Your task to perform on an android device: Open internet settings Image 0: 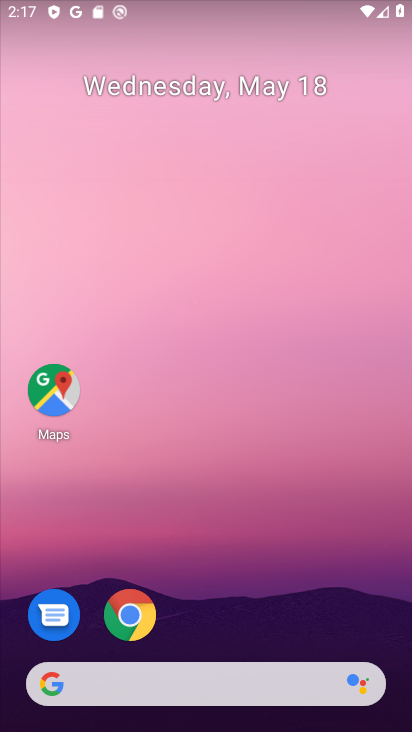
Step 0: drag from (246, 621) to (242, 224)
Your task to perform on an android device: Open internet settings Image 1: 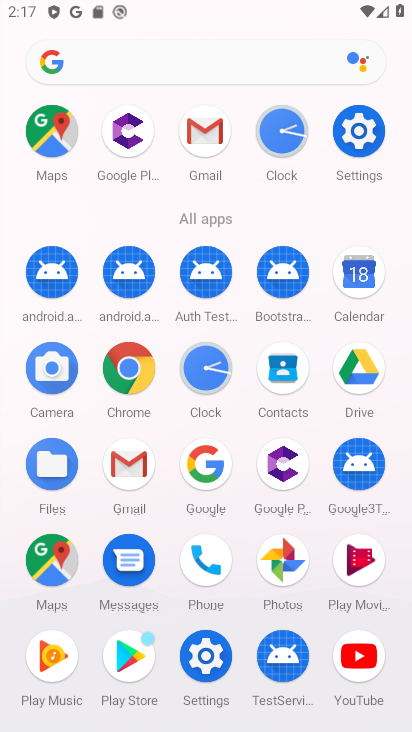
Step 1: click (357, 132)
Your task to perform on an android device: Open internet settings Image 2: 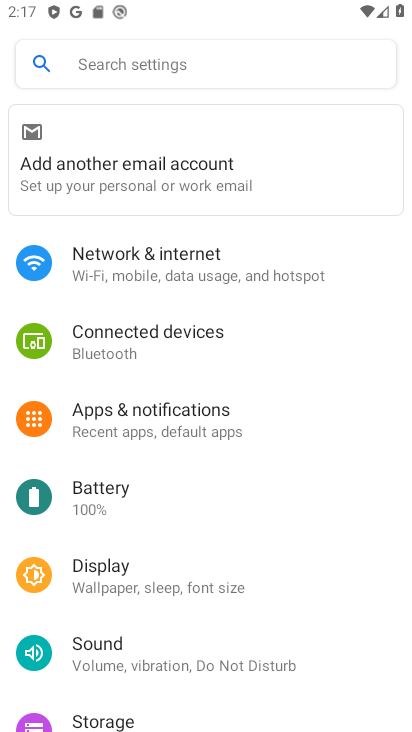
Step 2: click (125, 279)
Your task to perform on an android device: Open internet settings Image 3: 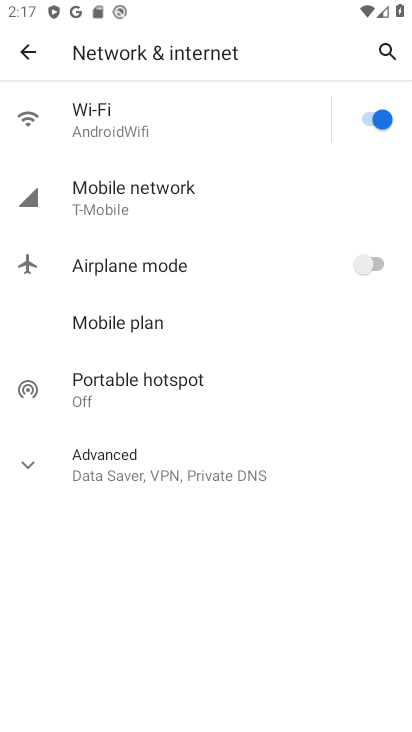
Step 3: task complete